Your task to perform on an android device: change your default location settings in chrome Image 0: 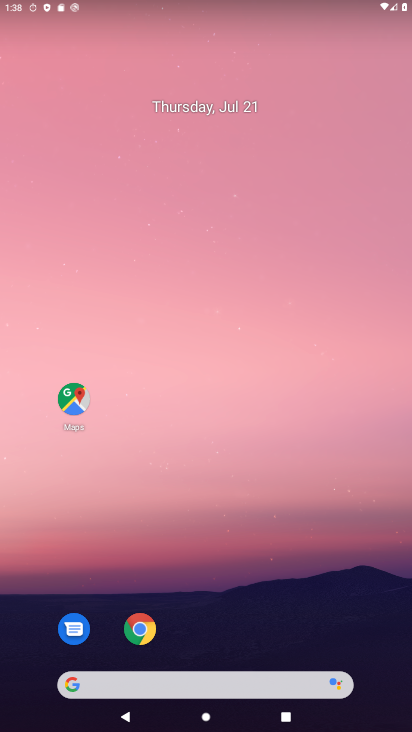
Step 0: click (129, 632)
Your task to perform on an android device: change your default location settings in chrome Image 1: 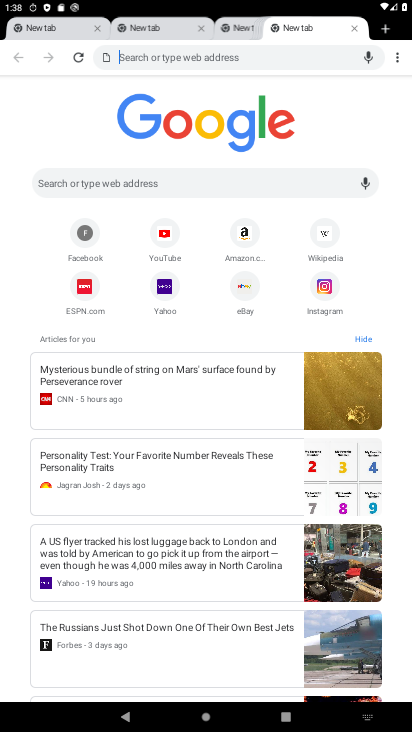
Step 1: click (393, 62)
Your task to perform on an android device: change your default location settings in chrome Image 2: 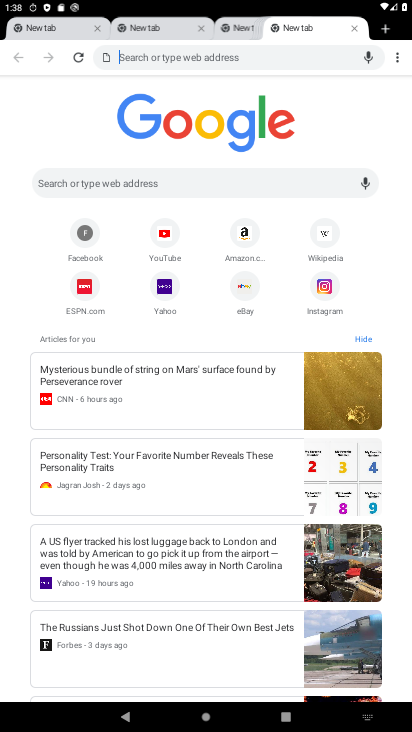
Step 2: click (396, 59)
Your task to perform on an android device: change your default location settings in chrome Image 3: 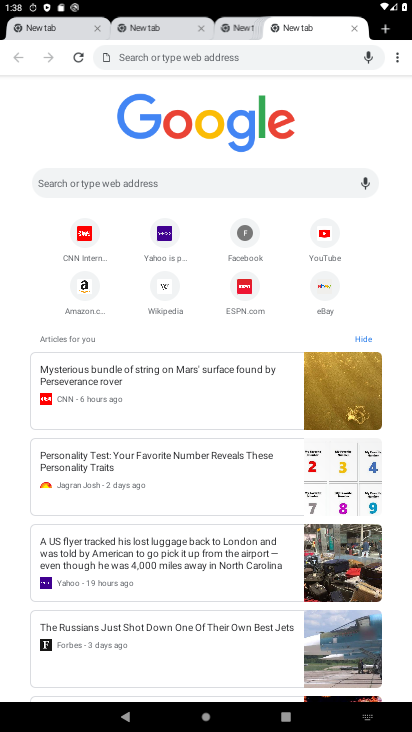
Step 3: click (396, 56)
Your task to perform on an android device: change your default location settings in chrome Image 4: 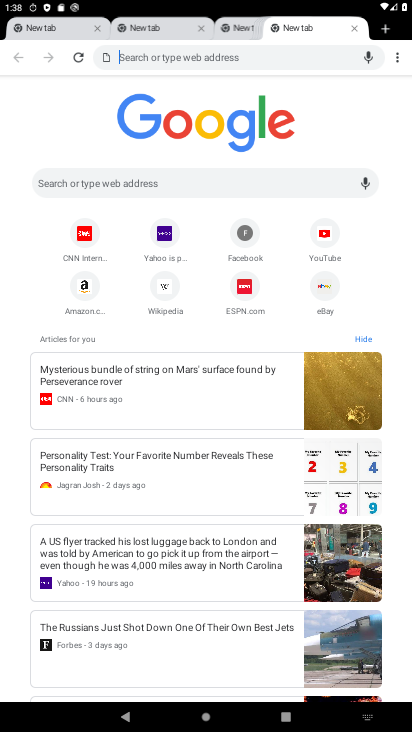
Step 4: click (395, 55)
Your task to perform on an android device: change your default location settings in chrome Image 5: 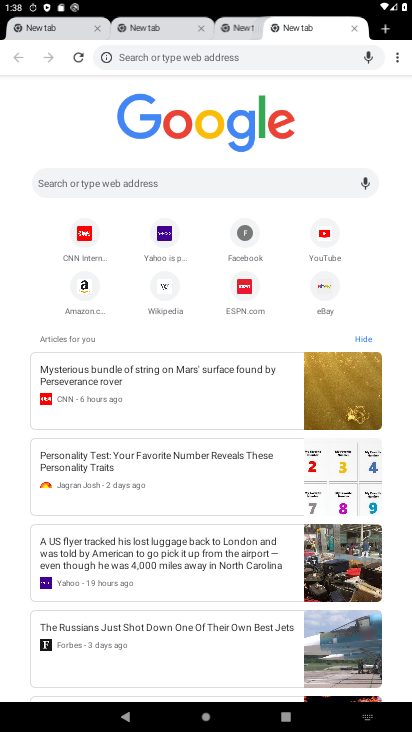
Step 5: task complete